Your task to perform on an android device: turn off location history Image 0: 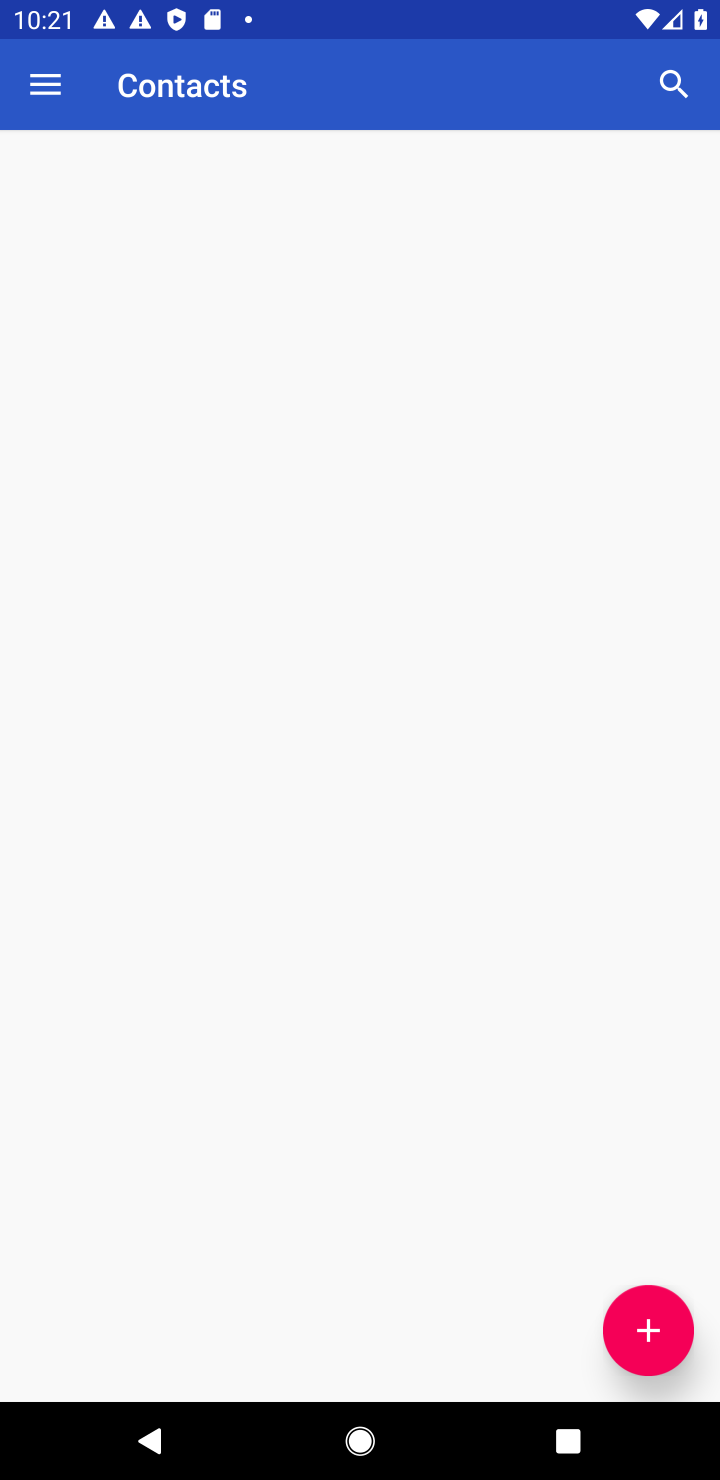
Step 0: press home button
Your task to perform on an android device: turn off location history Image 1: 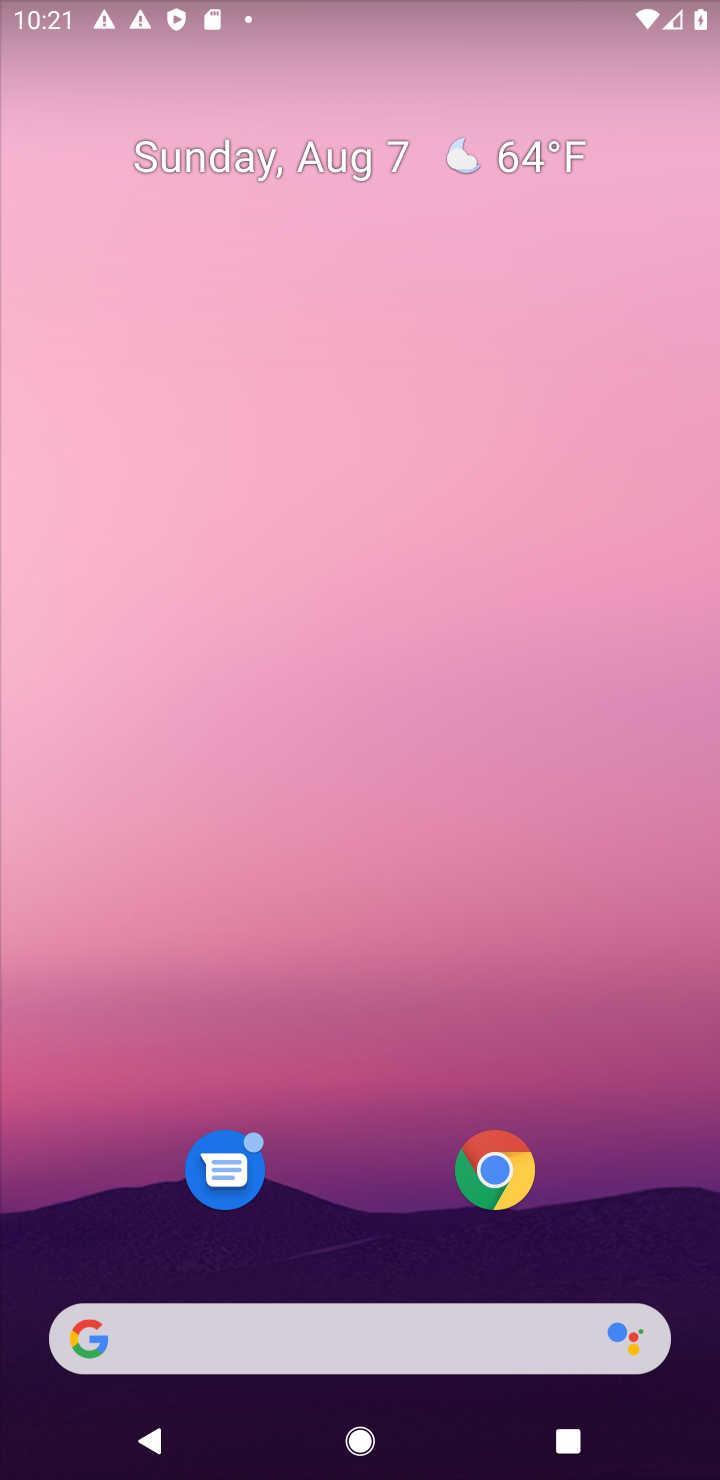
Step 1: drag from (455, 1332) to (297, 4)
Your task to perform on an android device: turn off location history Image 2: 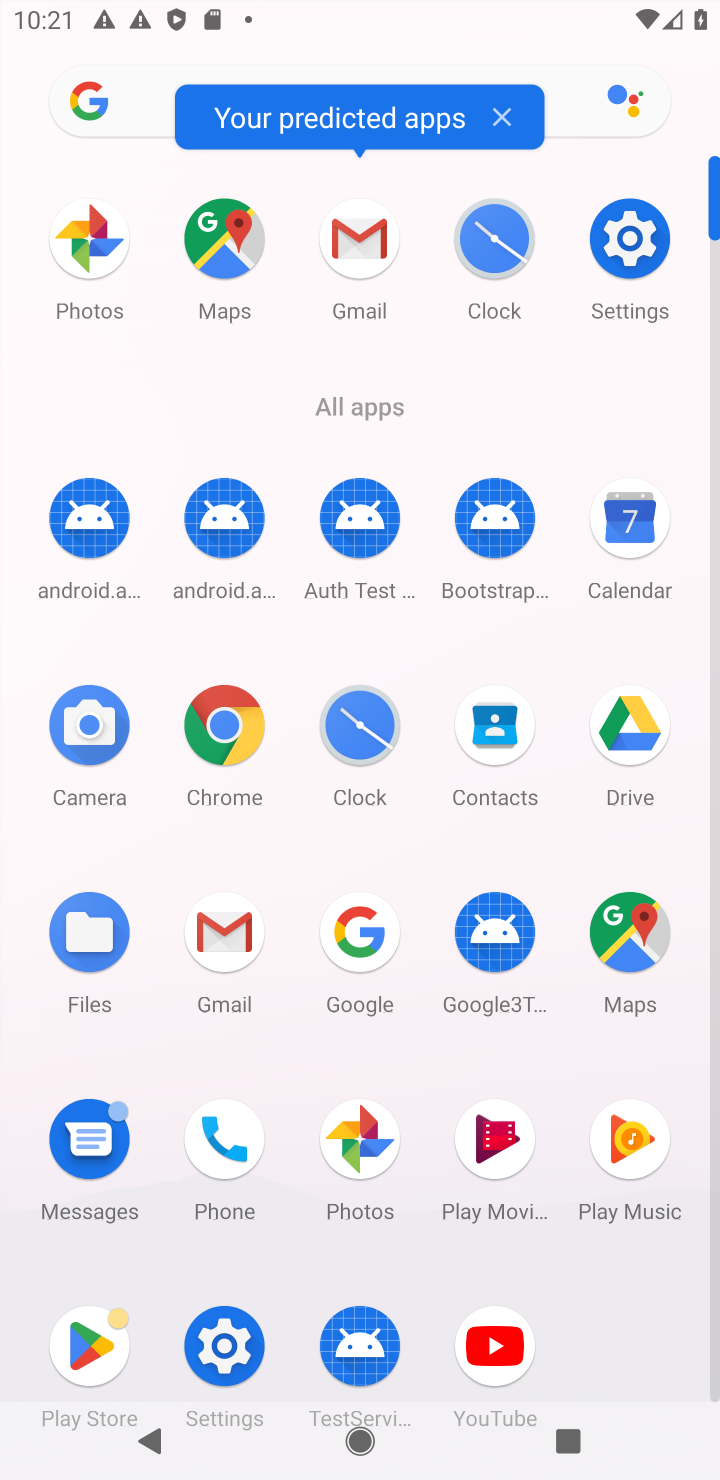
Step 2: click (227, 1326)
Your task to perform on an android device: turn off location history Image 3: 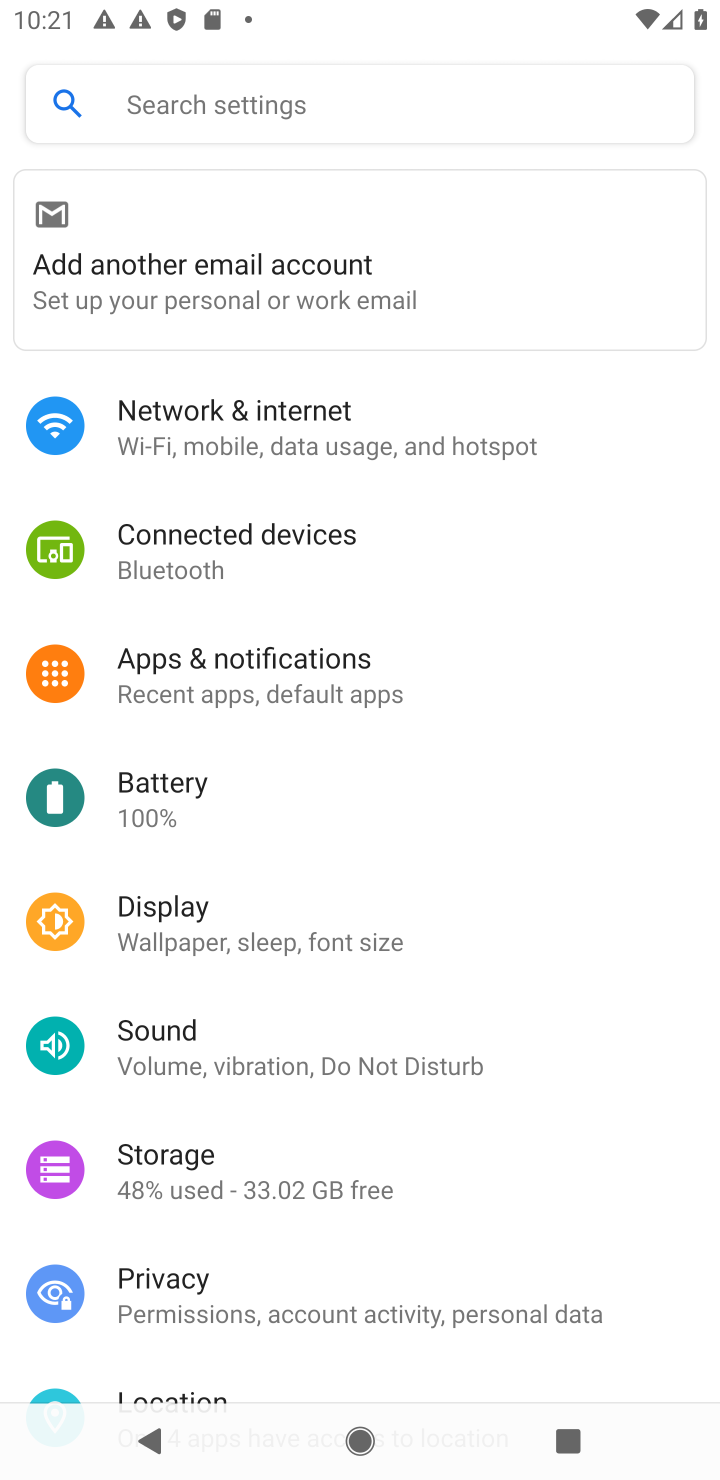
Step 3: click (227, 1384)
Your task to perform on an android device: turn off location history Image 4: 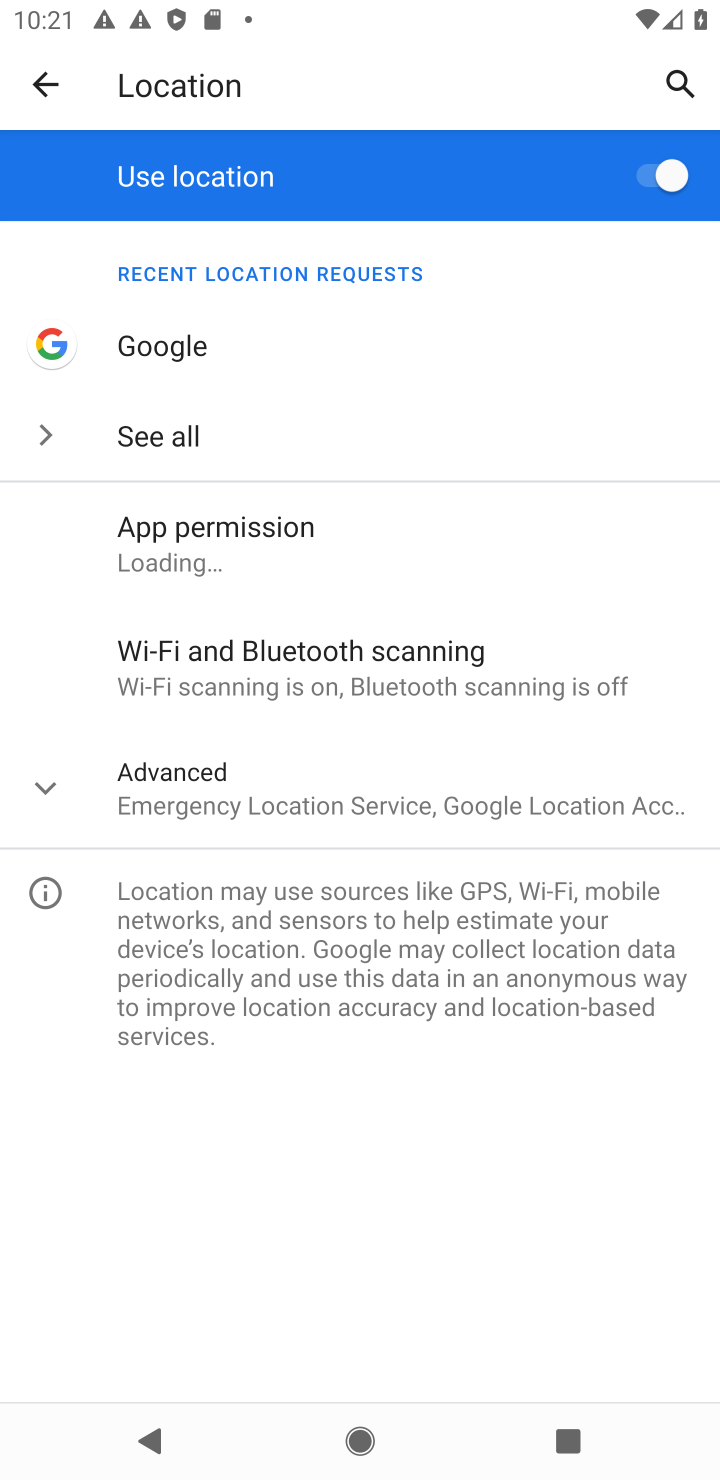
Step 4: click (246, 792)
Your task to perform on an android device: turn off location history Image 5: 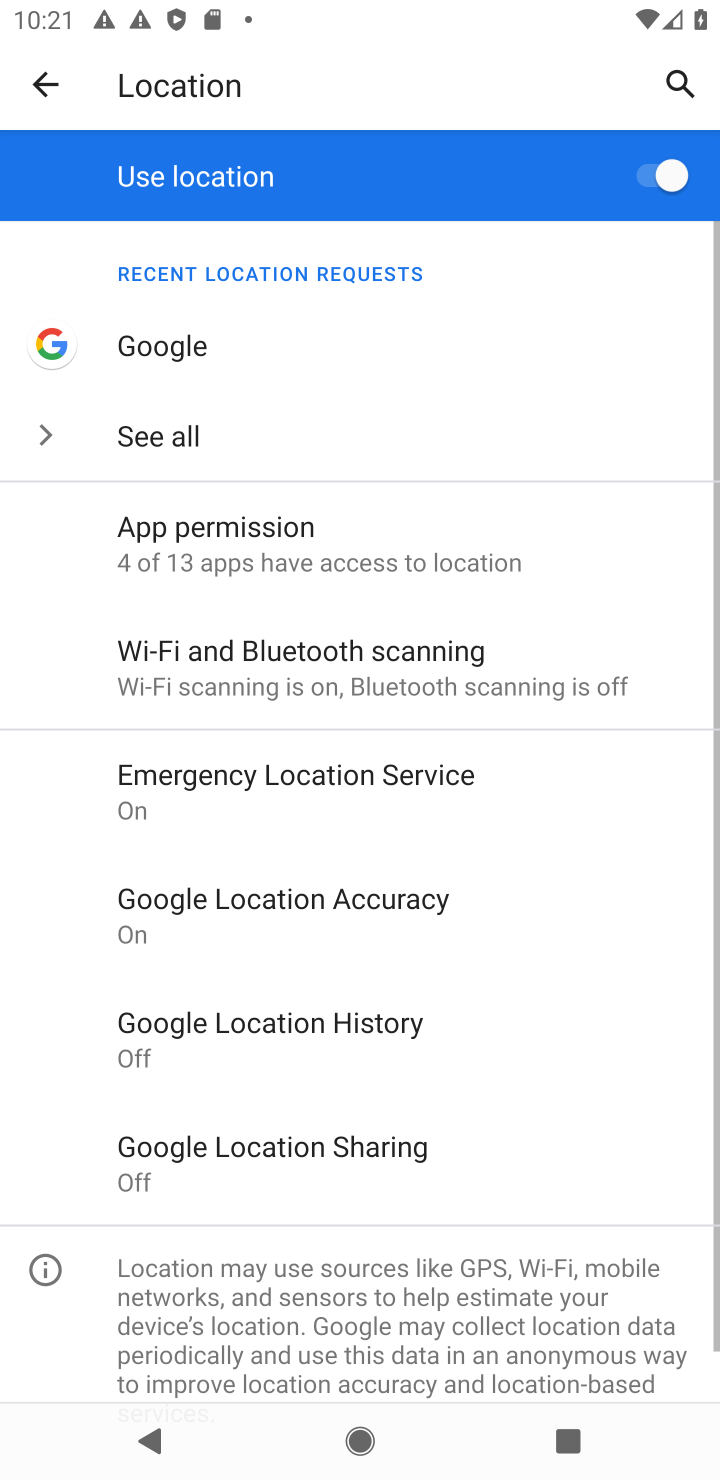
Step 5: click (351, 1036)
Your task to perform on an android device: turn off location history Image 6: 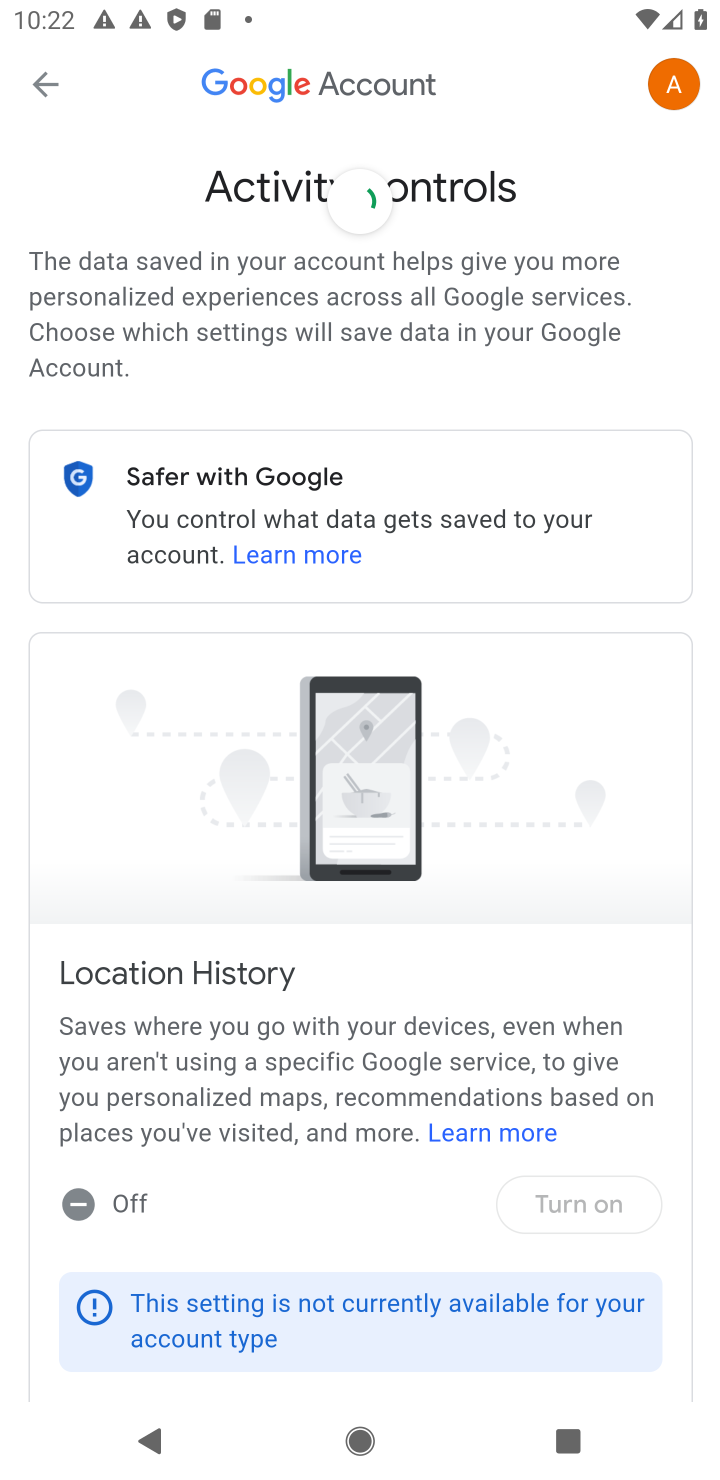
Step 6: task complete